Your task to perform on an android device: Search for a new foundation on Sephora Image 0: 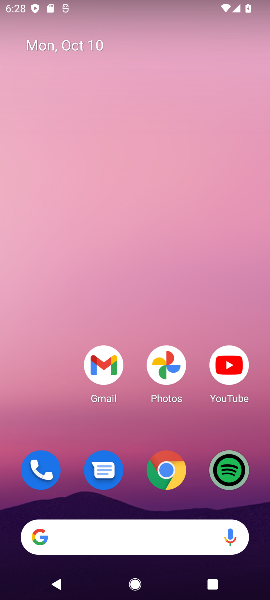
Step 0: click (171, 459)
Your task to perform on an android device: Search for a new foundation on Sephora Image 1: 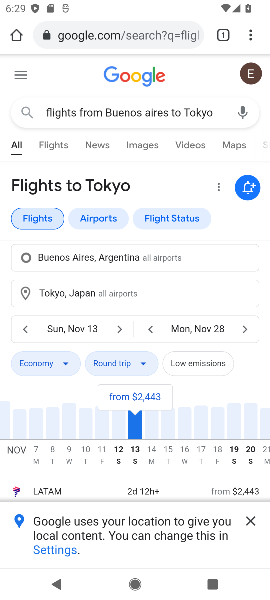
Step 1: click (172, 40)
Your task to perform on an android device: Search for a new foundation on Sephora Image 2: 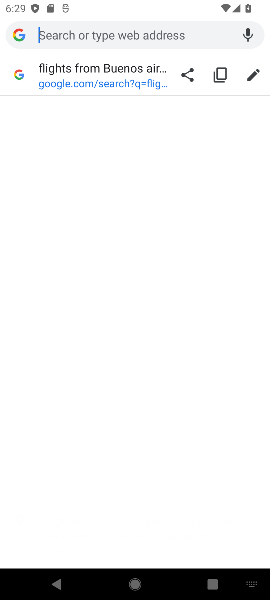
Step 2: type "new foundation on Sephora"
Your task to perform on an android device: Search for a new foundation on Sephora Image 3: 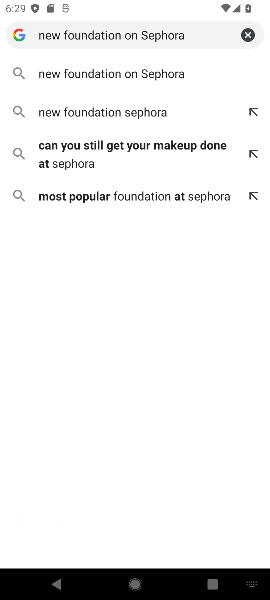
Step 3: click (172, 78)
Your task to perform on an android device: Search for a new foundation on Sephora Image 4: 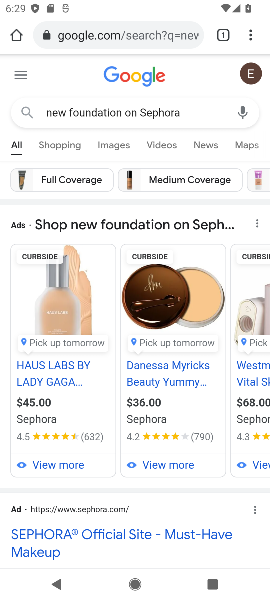
Step 4: click (64, 152)
Your task to perform on an android device: Search for a new foundation on Sephora Image 5: 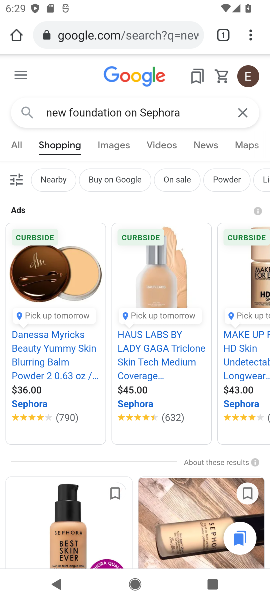
Step 5: click (35, 345)
Your task to perform on an android device: Search for a new foundation on Sephora Image 6: 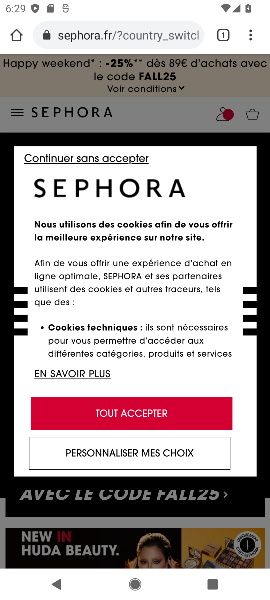
Step 6: click (154, 420)
Your task to perform on an android device: Search for a new foundation on Sephora Image 7: 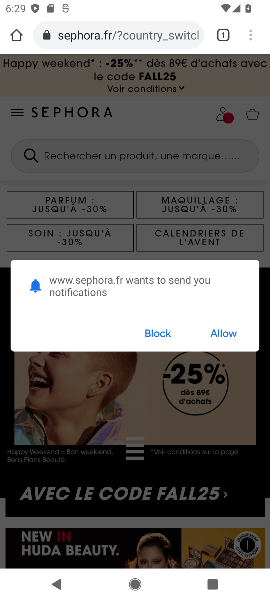
Step 7: click (221, 338)
Your task to perform on an android device: Search for a new foundation on Sephora Image 8: 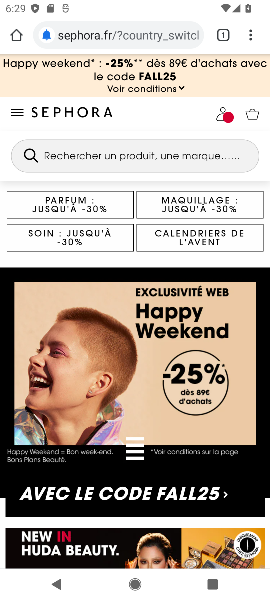
Step 8: task complete